Your task to perform on an android device: toggle translation in the chrome app Image 0: 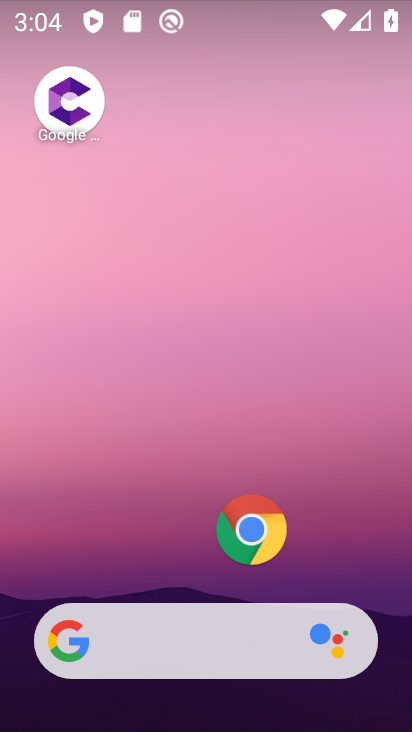
Step 0: click (253, 536)
Your task to perform on an android device: toggle translation in the chrome app Image 1: 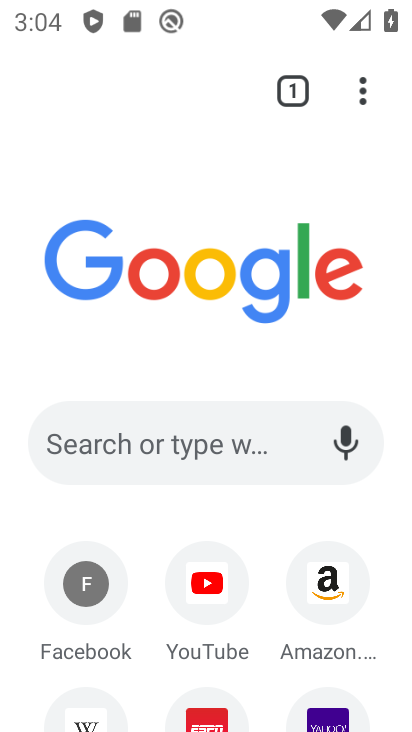
Step 1: click (365, 83)
Your task to perform on an android device: toggle translation in the chrome app Image 2: 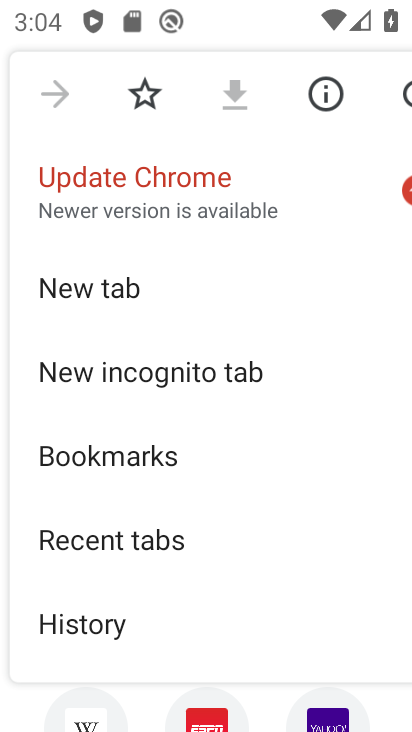
Step 2: drag from (139, 562) to (213, 210)
Your task to perform on an android device: toggle translation in the chrome app Image 3: 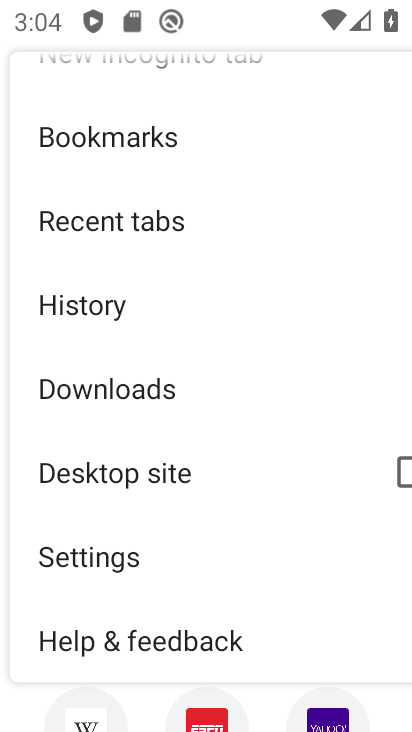
Step 3: click (96, 553)
Your task to perform on an android device: toggle translation in the chrome app Image 4: 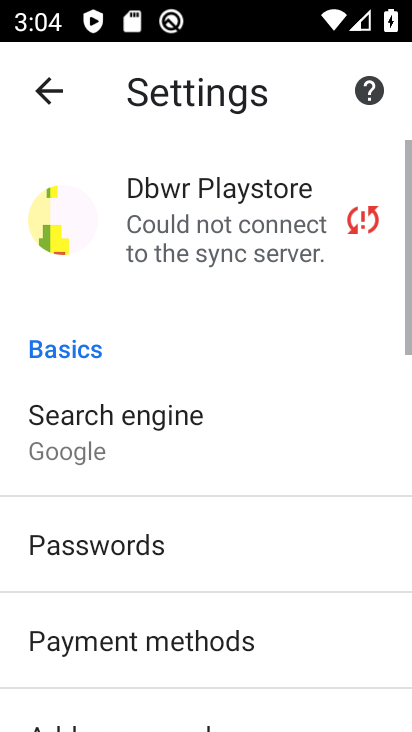
Step 4: drag from (180, 582) to (294, 223)
Your task to perform on an android device: toggle translation in the chrome app Image 5: 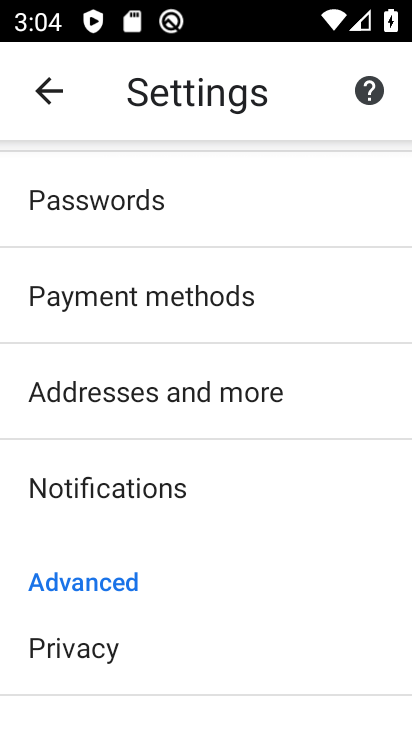
Step 5: drag from (200, 555) to (268, 185)
Your task to perform on an android device: toggle translation in the chrome app Image 6: 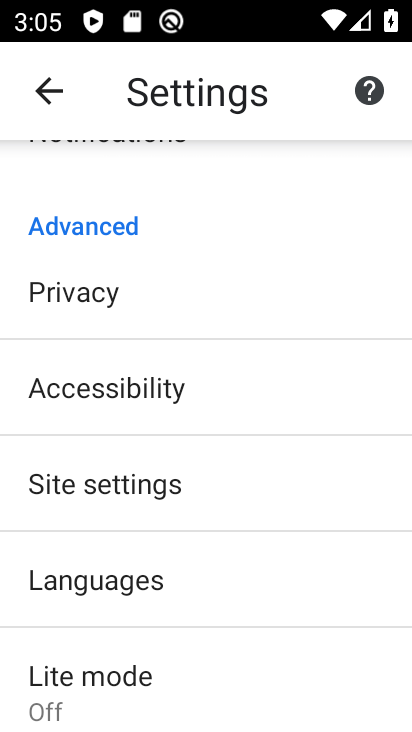
Step 6: click (102, 596)
Your task to perform on an android device: toggle translation in the chrome app Image 7: 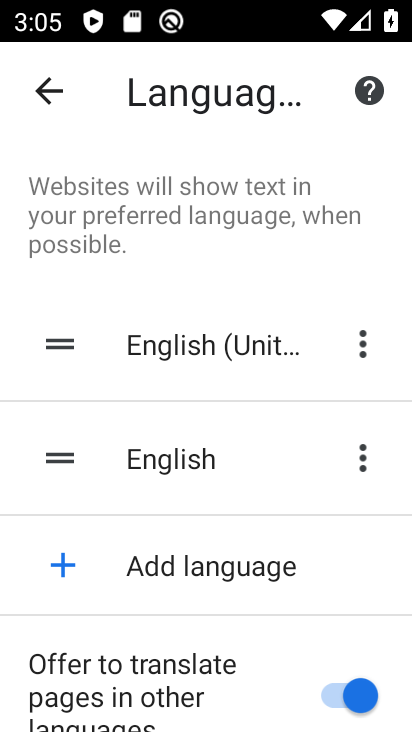
Step 7: click (336, 692)
Your task to perform on an android device: toggle translation in the chrome app Image 8: 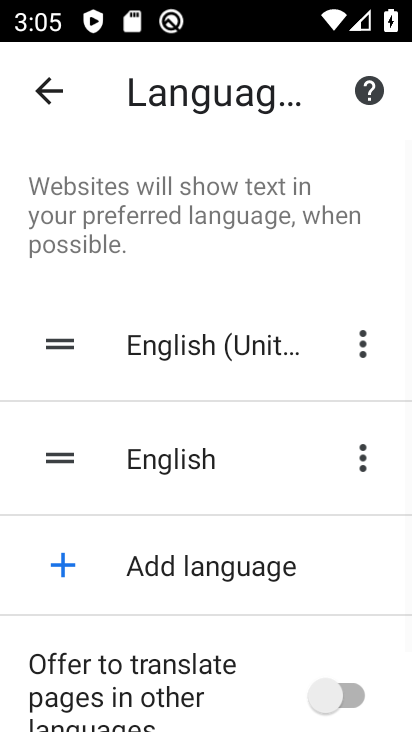
Step 8: task complete